Your task to perform on an android device: delete a single message in the gmail app Image 0: 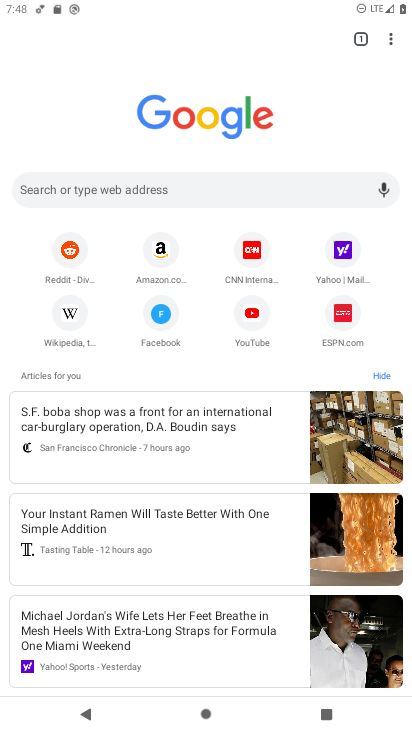
Step 0: press home button
Your task to perform on an android device: delete a single message in the gmail app Image 1: 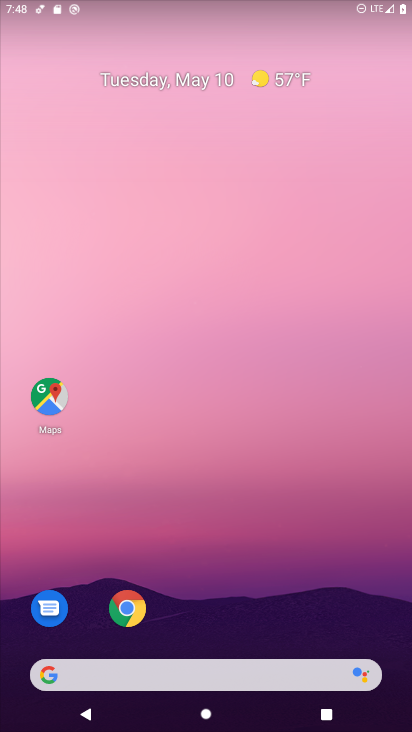
Step 1: drag from (315, 605) to (234, 0)
Your task to perform on an android device: delete a single message in the gmail app Image 2: 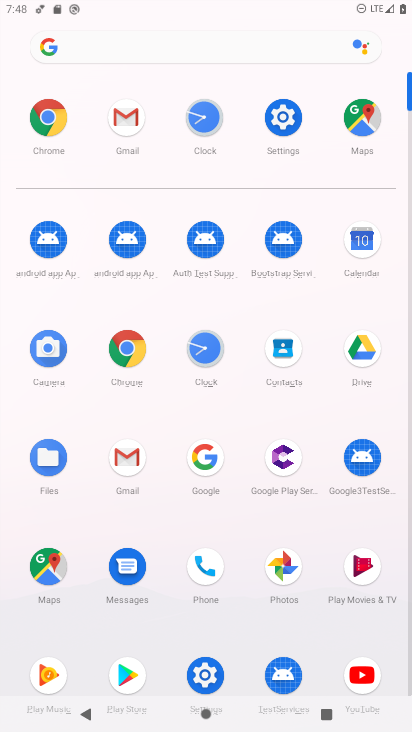
Step 2: click (118, 464)
Your task to perform on an android device: delete a single message in the gmail app Image 3: 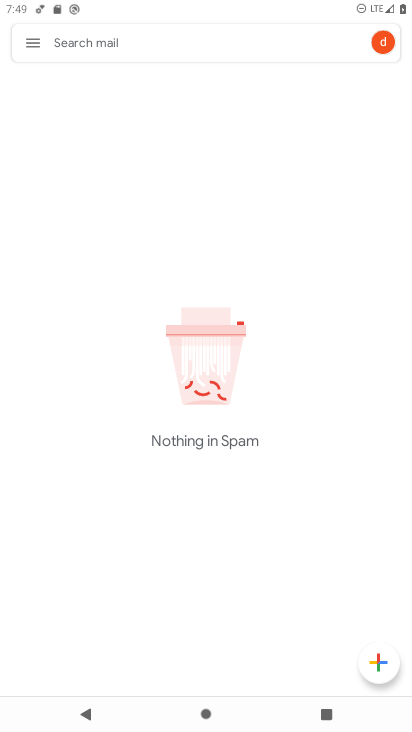
Step 3: click (29, 39)
Your task to perform on an android device: delete a single message in the gmail app Image 4: 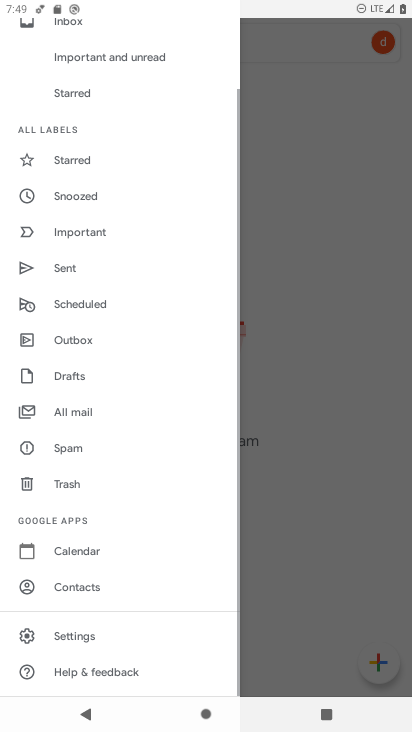
Step 4: drag from (77, 116) to (101, 628)
Your task to perform on an android device: delete a single message in the gmail app Image 5: 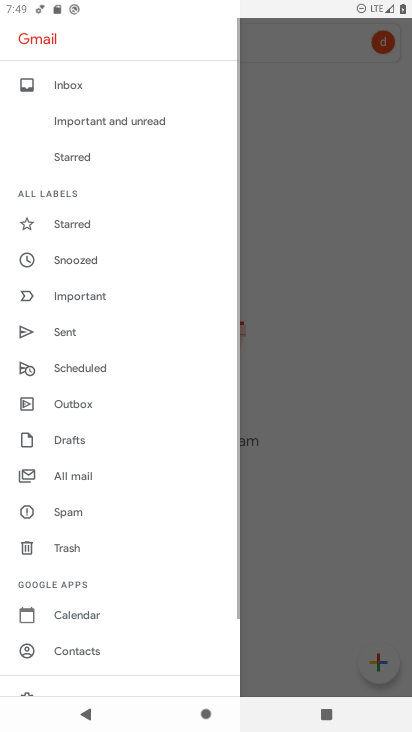
Step 5: click (74, 100)
Your task to perform on an android device: delete a single message in the gmail app Image 6: 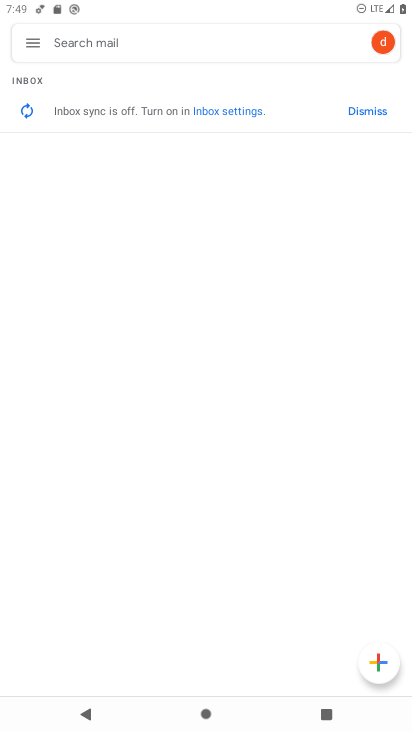
Step 6: task complete